Your task to perform on an android device: What's on my calendar tomorrow? Image 0: 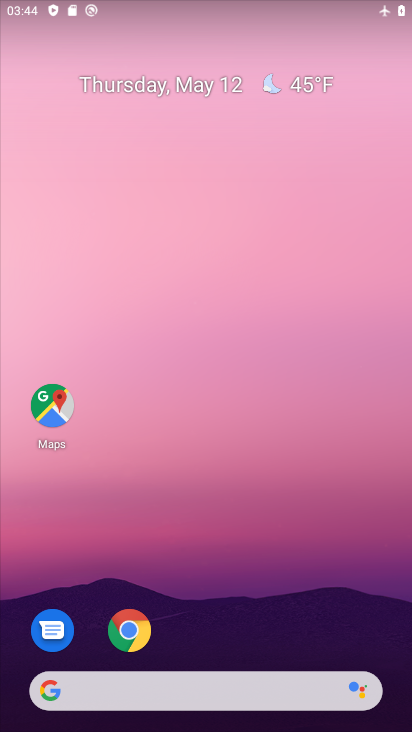
Step 0: drag from (271, 632) to (409, 2)
Your task to perform on an android device: What's on my calendar tomorrow? Image 1: 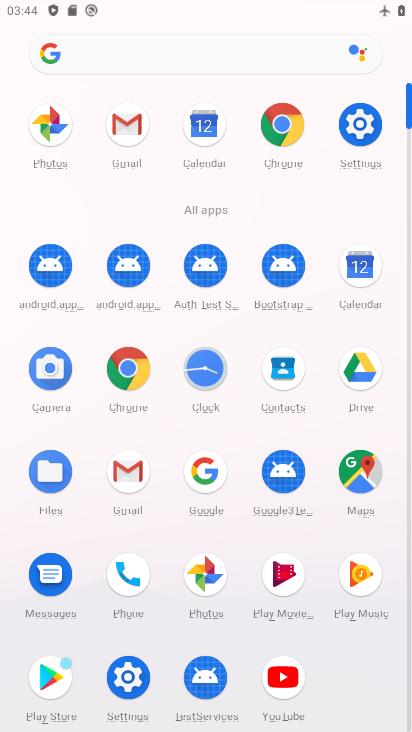
Step 1: click (364, 277)
Your task to perform on an android device: What's on my calendar tomorrow? Image 2: 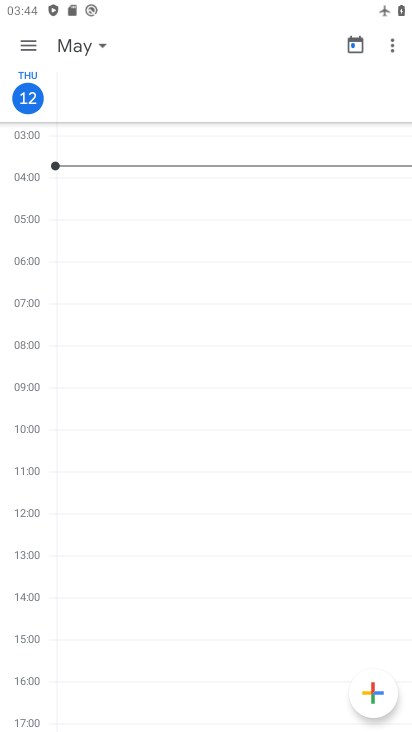
Step 2: click (37, 34)
Your task to perform on an android device: What's on my calendar tomorrow? Image 3: 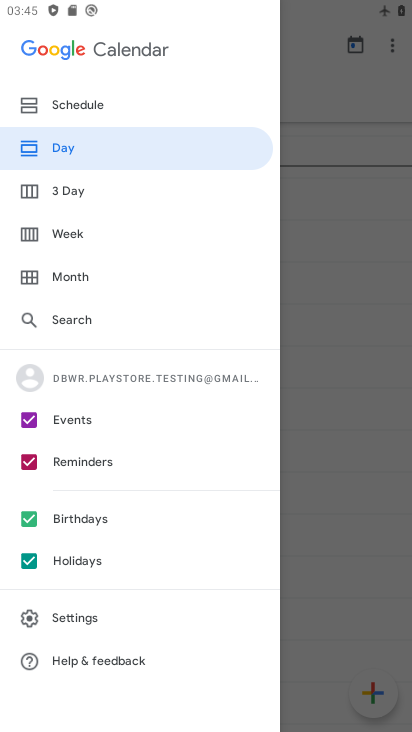
Step 3: click (73, 196)
Your task to perform on an android device: What's on my calendar tomorrow? Image 4: 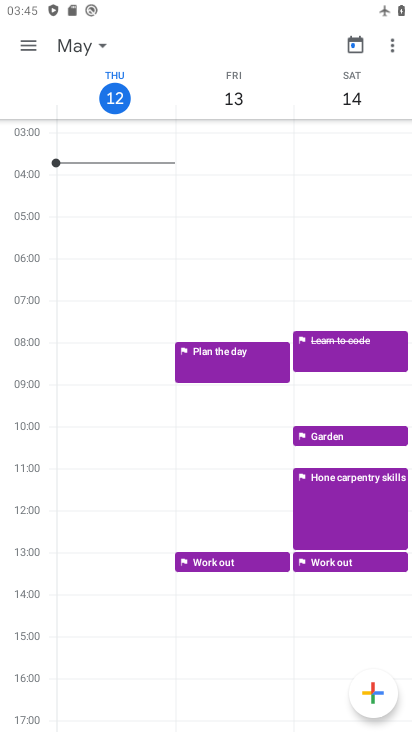
Step 4: task complete